Your task to perform on an android device: read, delete, or share a saved page in the chrome app Image 0: 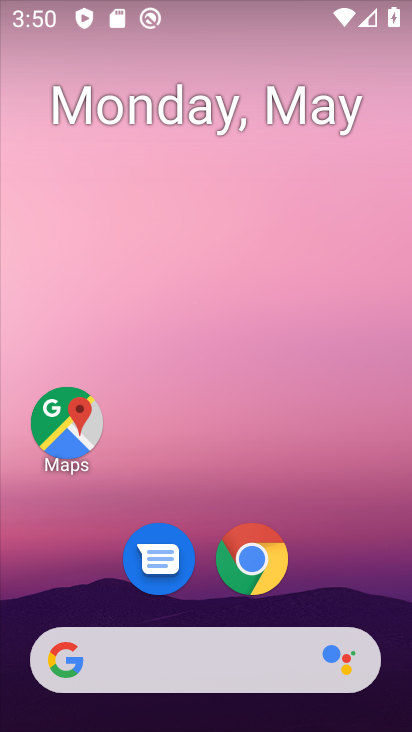
Step 0: drag from (295, 535) to (212, 0)
Your task to perform on an android device: read, delete, or share a saved page in the chrome app Image 1: 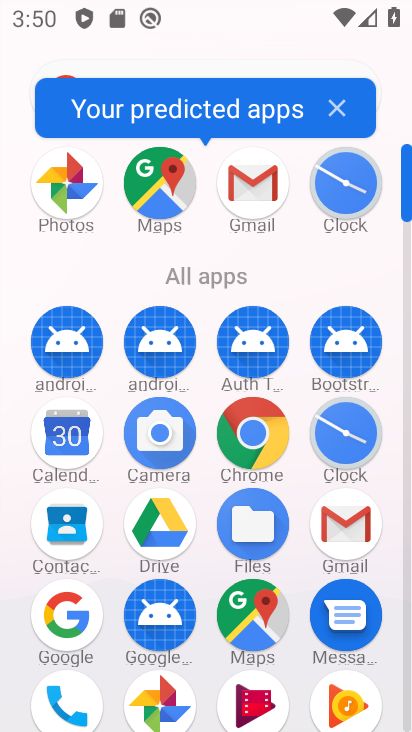
Step 1: drag from (23, 544) to (10, 213)
Your task to perform on an android device: read, delete, or share a saved page in the chrome app Image 2: 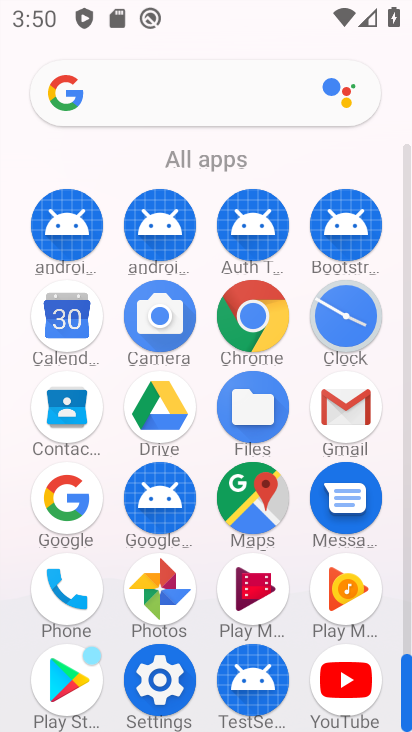
Step 2: click (252, 313)
Your task to perform on an android device: read, delete, or share a saved page in the chrome app Image 3: 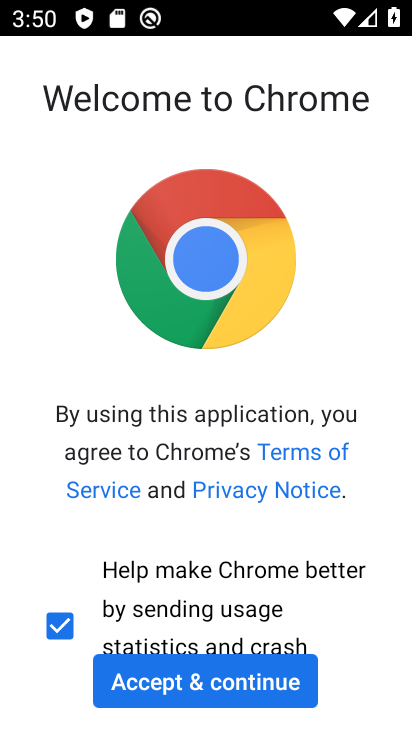
Step 3: click (219, 677)
Your task to perform on an android device: read, delete, or share a saved page in the chrome app Image 4: 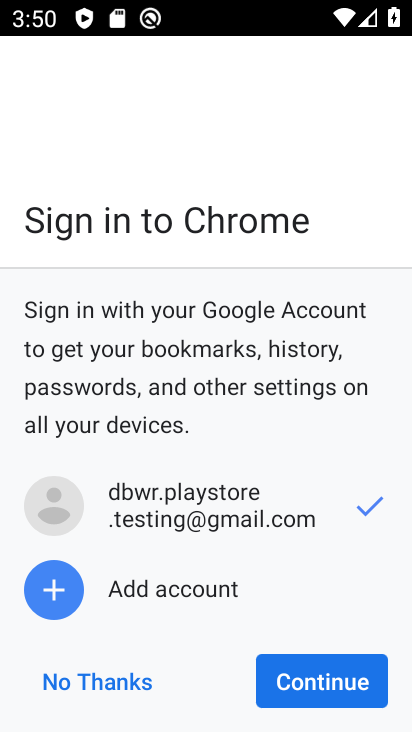
Step 4: click (315, 668)
Your task to perform on an android device: read, delete, or share a saved page in the chrome app Image 5: 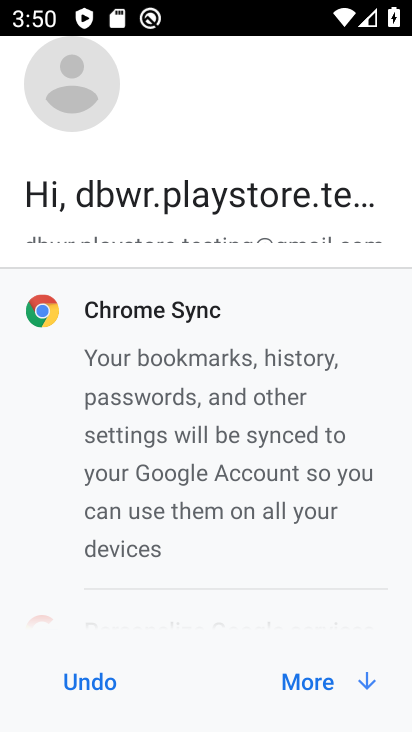
Step 5: click (312, 690)
Your task to perform on an android device: read, delete, or share a saved page in the chrome app Image 6: 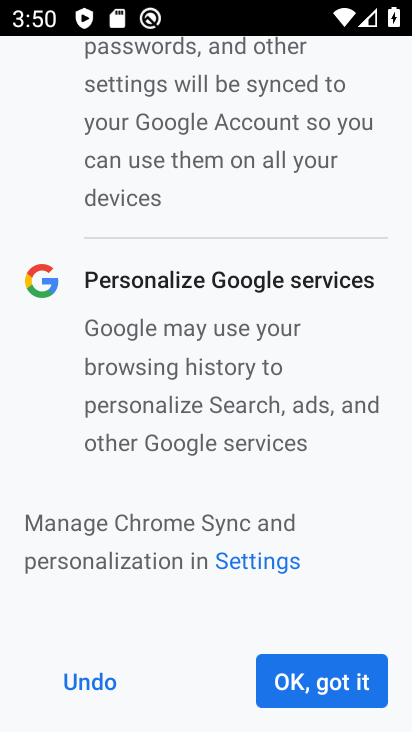
Step 6: click (338, 674)
Your task to perform on an android device: read, delete, or share a saved page in the chrome app Image 7: 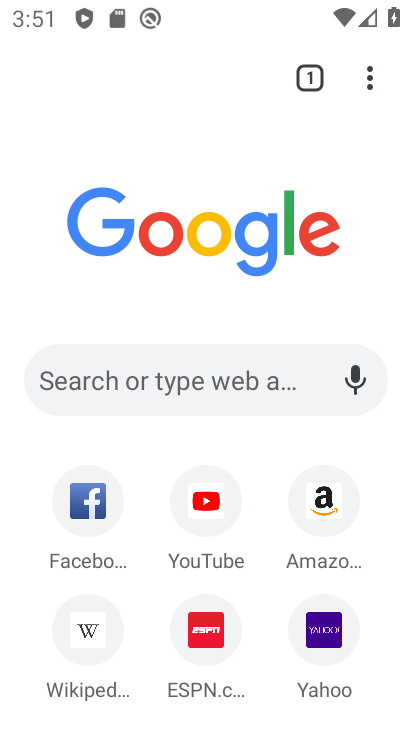
Step 7: task complete